Your task to perform on an android device: Show me the alarms in the clock app Image 0: 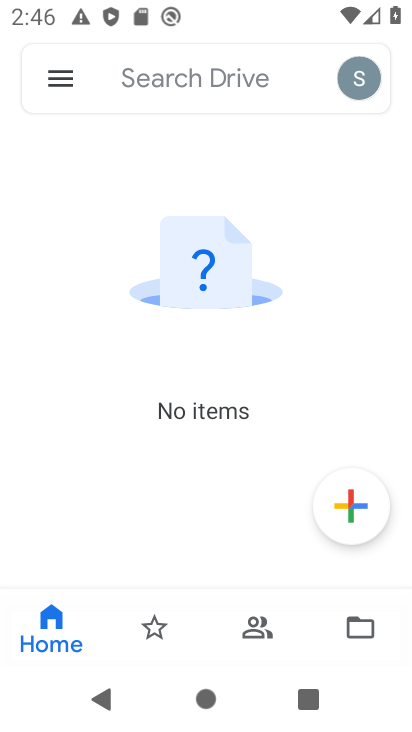
Step 0: press home button
Your task to perform on an android device: Show me the alarms in the clock app Image 1: 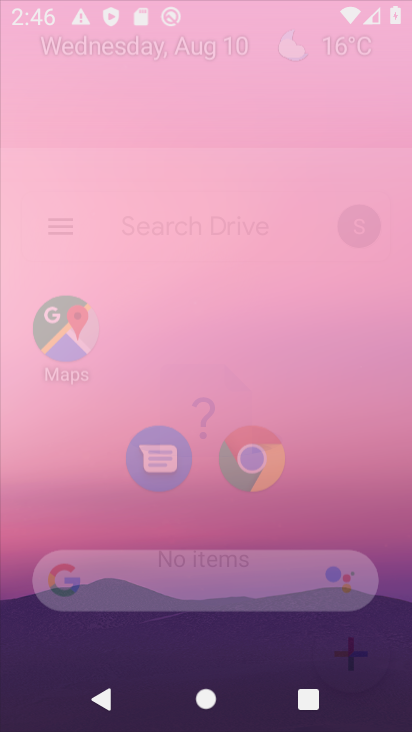
Step 1: press home button
Your task to perform on an android device: Show me the alarms in the clock app Image 2: 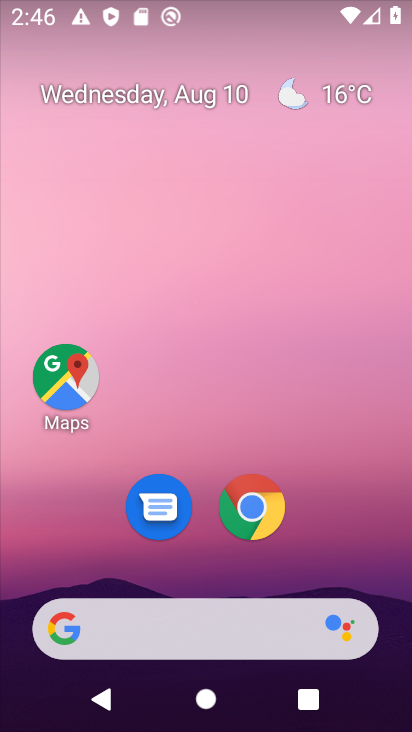
Step 2: drag from (310, 545) to (337, 6)
Your task to perform on an android device: Show me the alarms in the clock app Image 3: 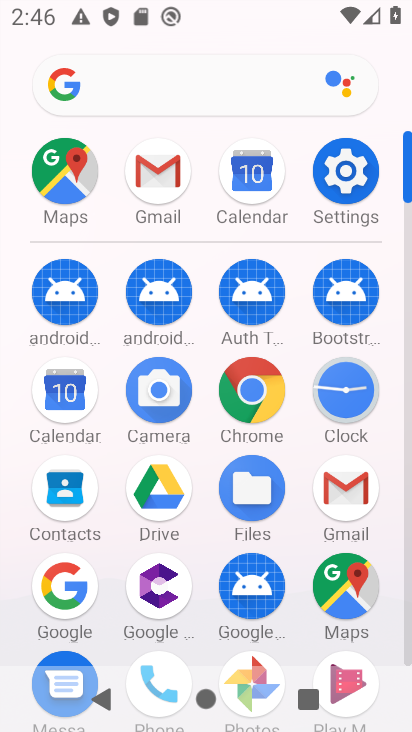
Step 3: click (335, 400)
Your task to perform on an android device: Show me the alarms in the clock app Image 4: 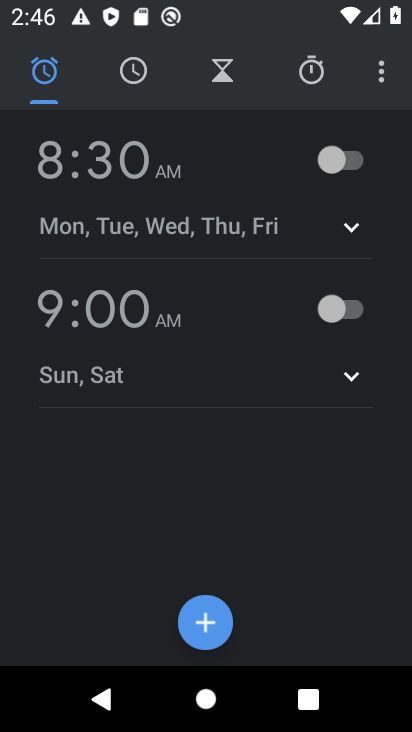
Step 4: task complete